Your task to perform on an android device: Search for Italian restaurants on Maps Image 0: 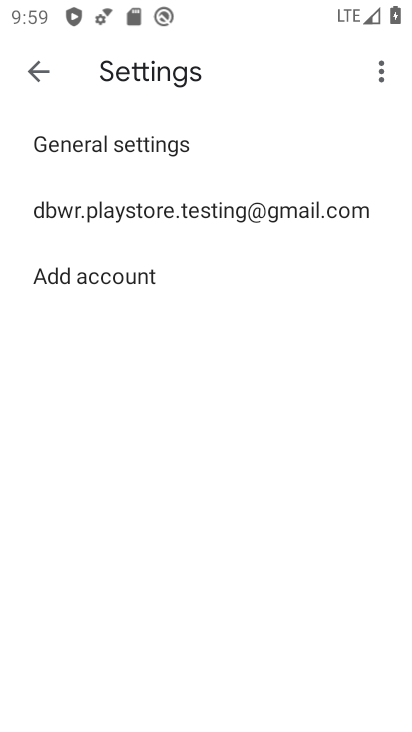
Step 0: press home button
Your task to perform on an android device: Search for Italian restaurants on Maps Image 1: 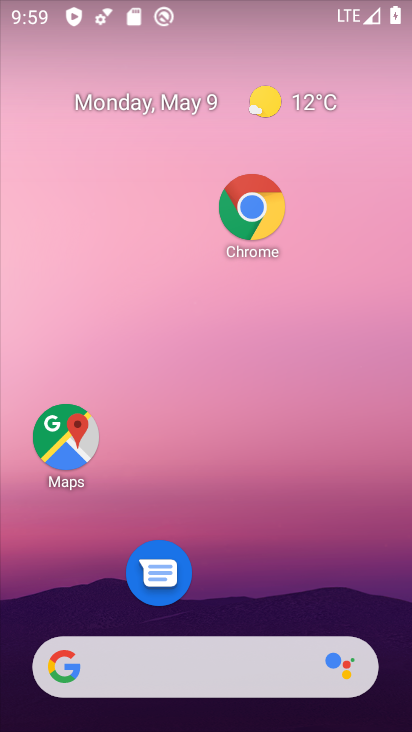
Step 1: drag from (301, 524) to (405, 0)
Your task to perform on an android device: Search for Italian restaurants on Maps Image 2: 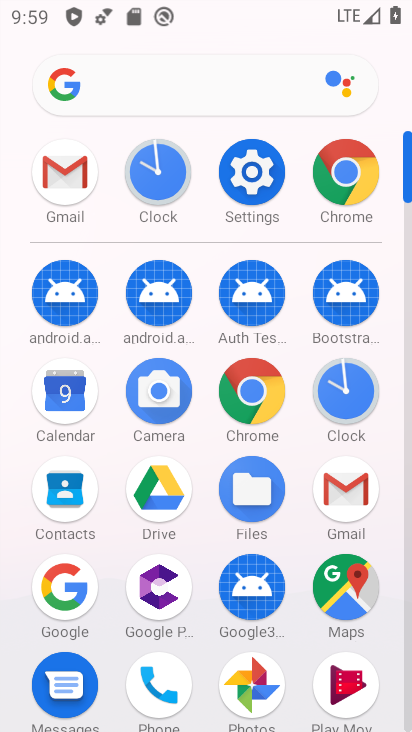
Step 2: click (345, 609)
Your task to perform on an android device: Search for Italian restaurants on Maps Image 3: 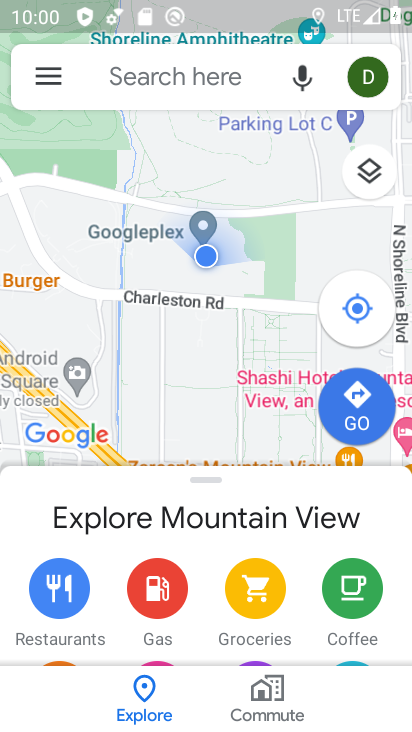
Step 3: click (236, 72)
Your task to perform on an android device: Search for Italian restaurants on Maps Image 4: 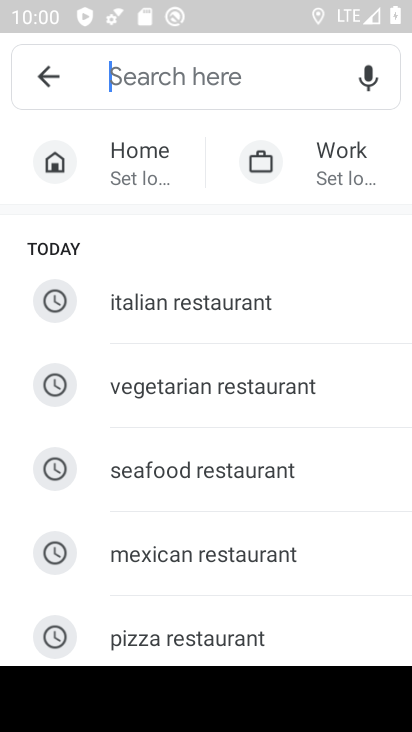
Step 4: click (228, 317)
Your task to perform on an android device: Search for Italian restaurants on Maps Image 5: 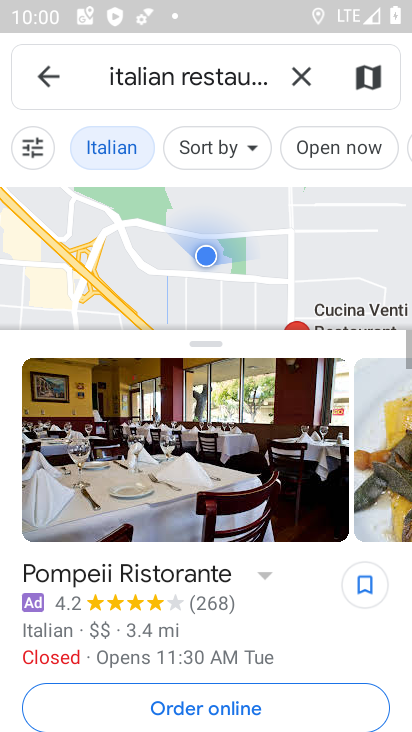
Step 5: task complete